Your task to perform on an android device: Go to Amazon Image 0: 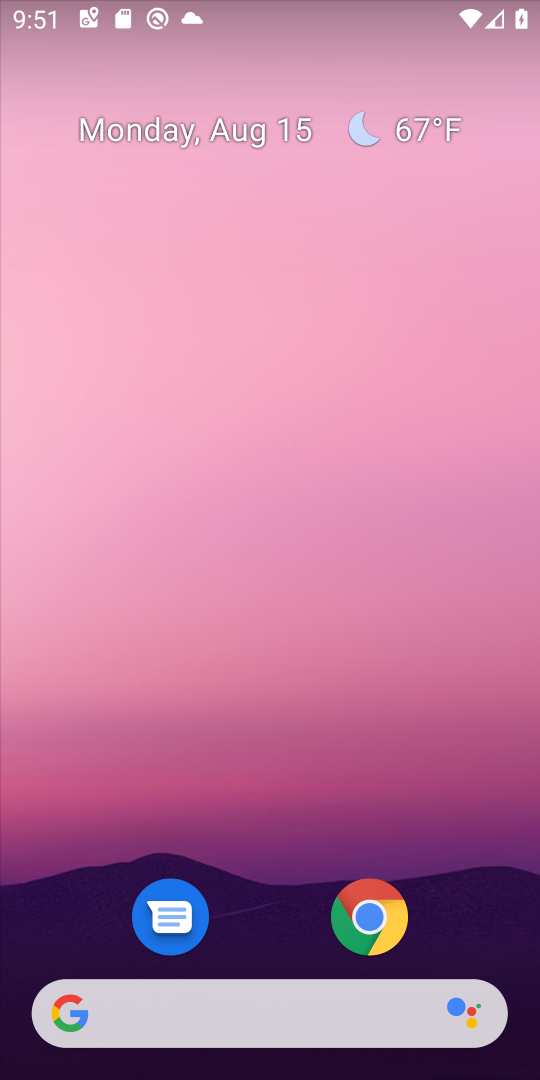
Step 0: click (370, 914)
Your task to perform on an android device: Go to Amazon Image 1: 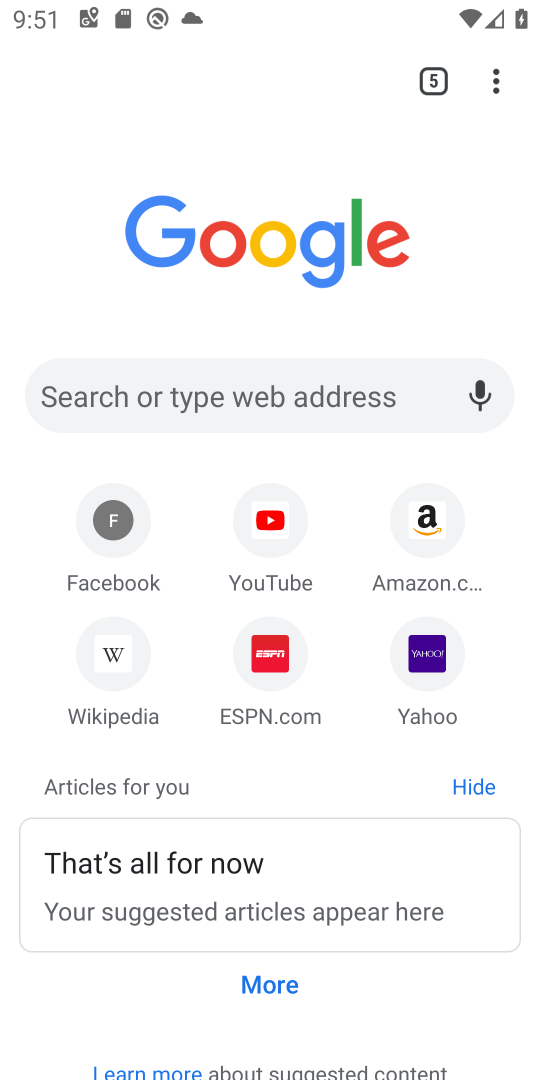
Step 1: click (429, 509)
Your task to perform on an android device: Go to Amazon Image 2: 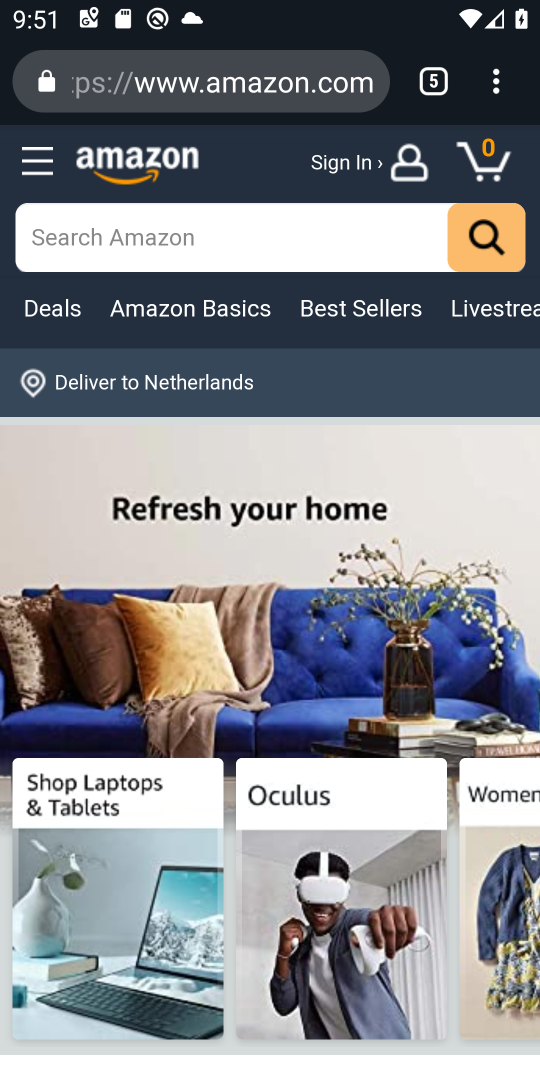
Step 2: task complete